Your task to perform on an android device: Open maps Image 0: 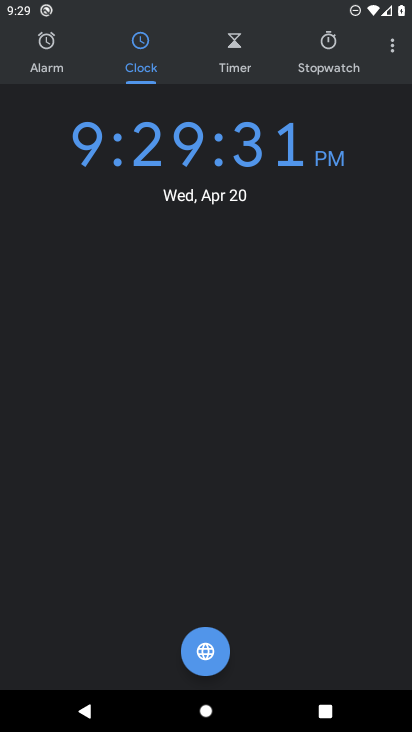
Step 0: press home button
Your task to perform on an android device: Open maps Image 1: 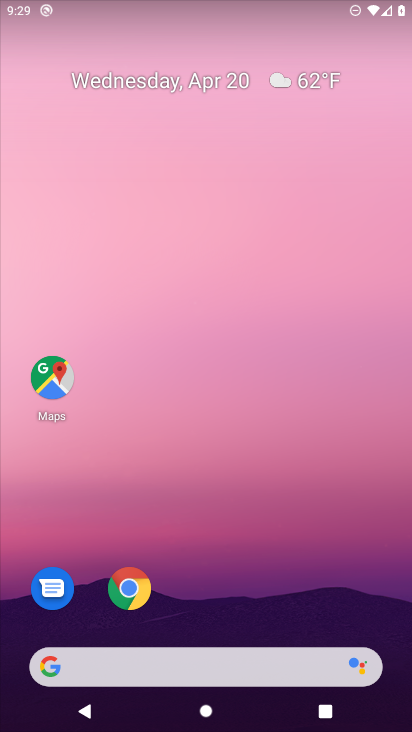
Step 1: click (53, 376)
Your task to perform on an android device: Open maps Image 2: 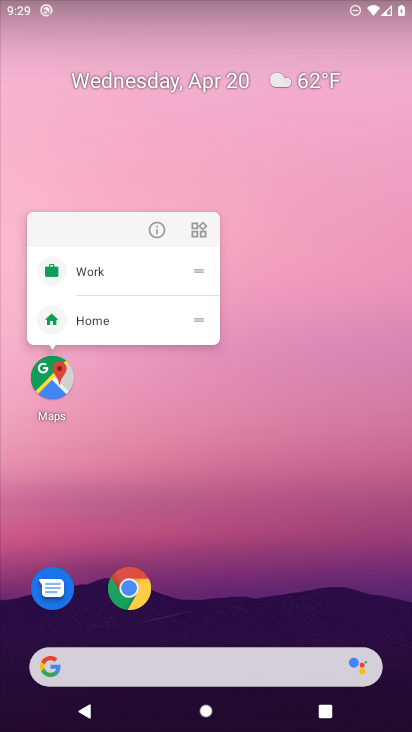
Step 2: click (107, 383)
Your task to perform on an android device: Open maps Image 3: 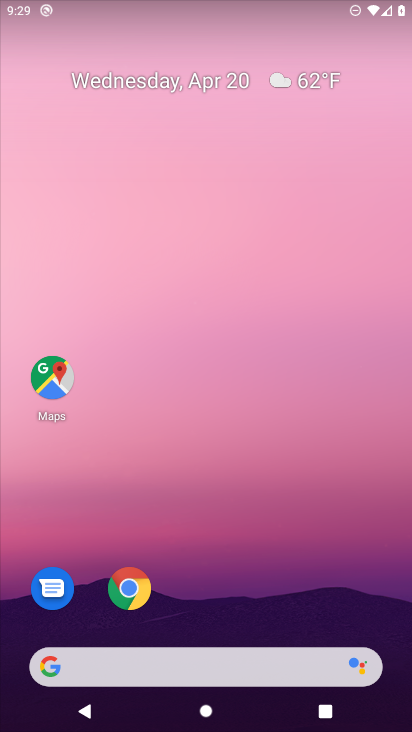
Step 3: click (51, 371)
Your task to perform on an android device: Open maps Image 4: 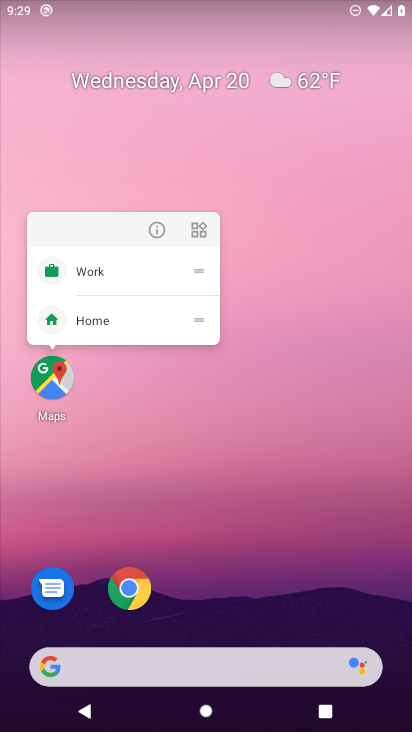
Step 4: click (50, 375)
Your task to perform on an android device: Open maps Image 5: 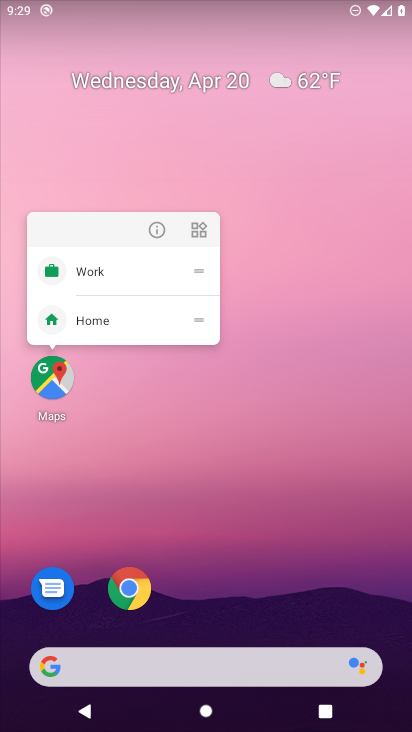
Step 5: click (54, 374)
Your task to perform on an android device: Open maps Image 6: 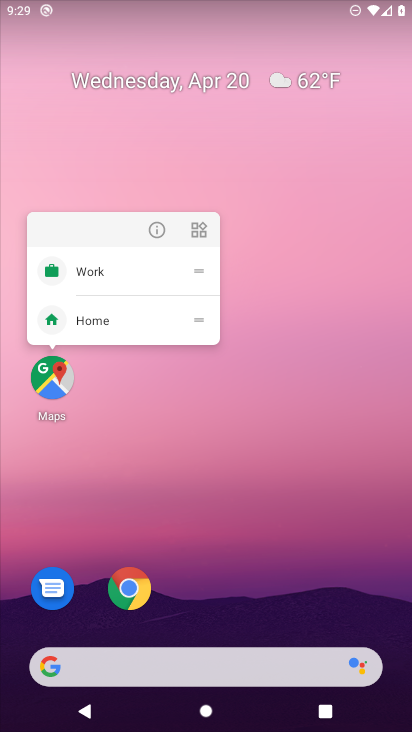
Step 6: click (123, 394)
Your task to perform on an android device: Open maps Image 7: 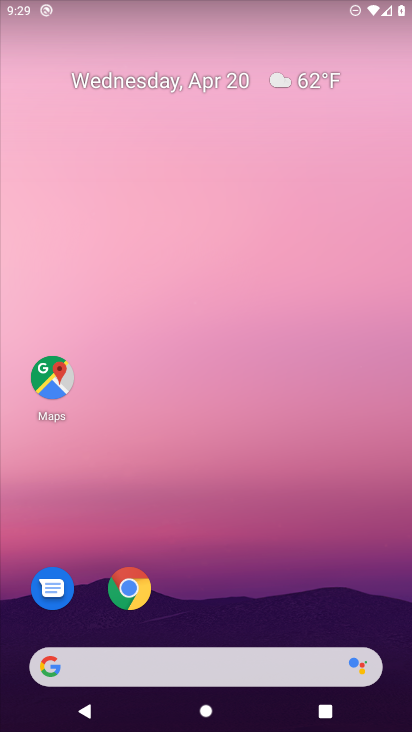
Step 7: click (88, 477)
Your task to perform on an android device: Open maps Image 8: 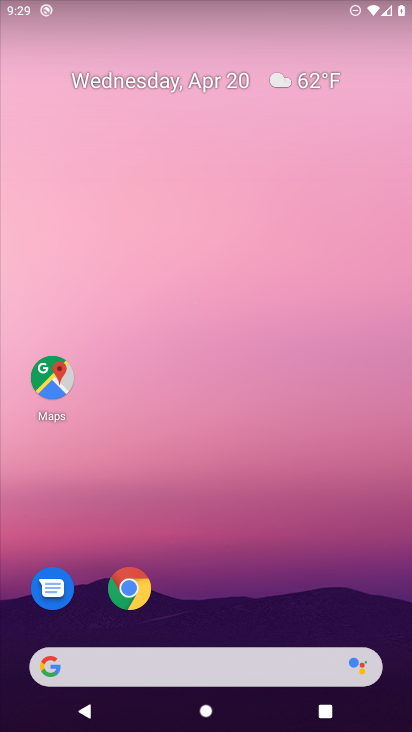
Step 8: click (51, 381)
Your task to perform on an android device: Open maps Image 9: 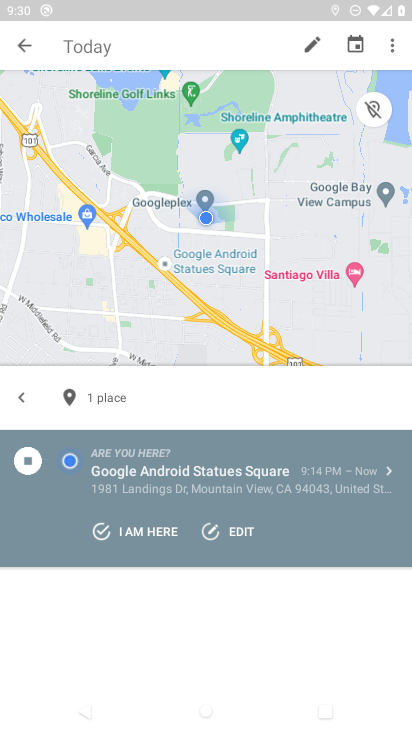
Step 9: click (22, 43)
Your task to perform on an android device: Open maps Image 10: 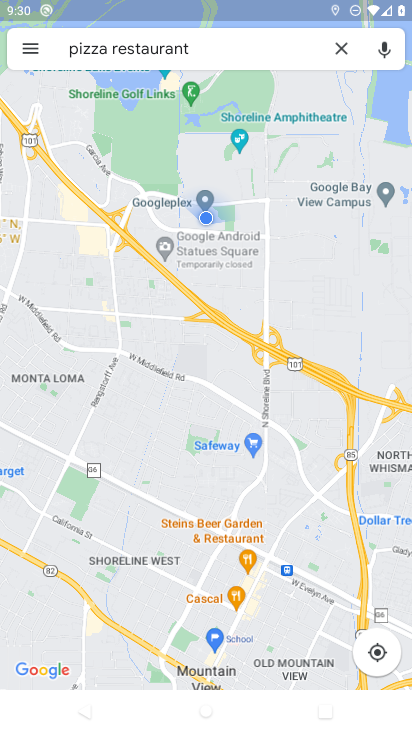
Step 10: task complete